Your task to perform on an android device: Go to Android settings Image 0: 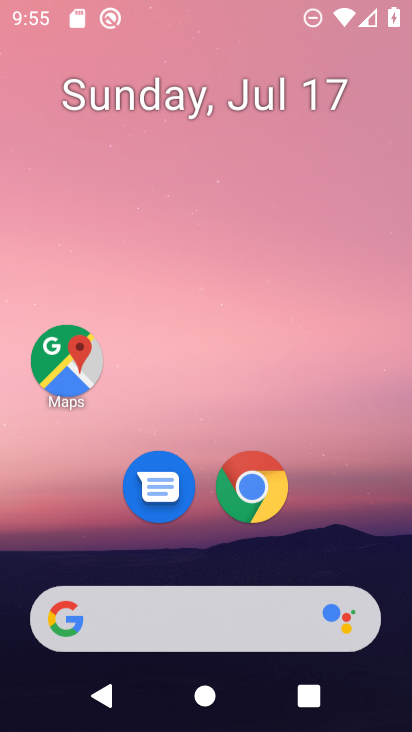
Step 0: press home button
Your task to perform on an android device: Go to Android settings Image 1: 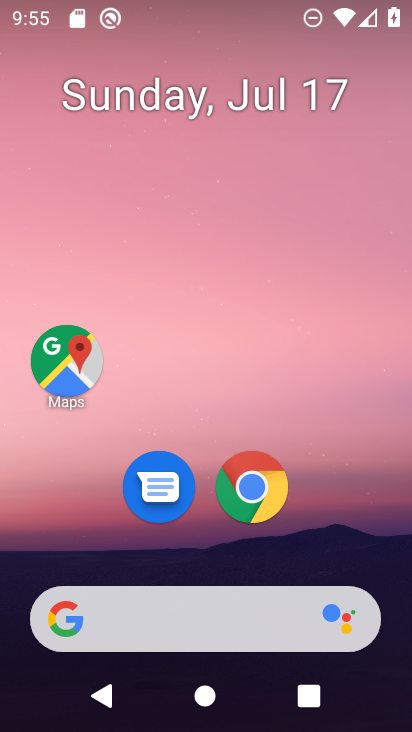
Step 1: drag from (322, 566) to (292, 49)
Your task to perform on an android device: Go to Android settings Image 2: 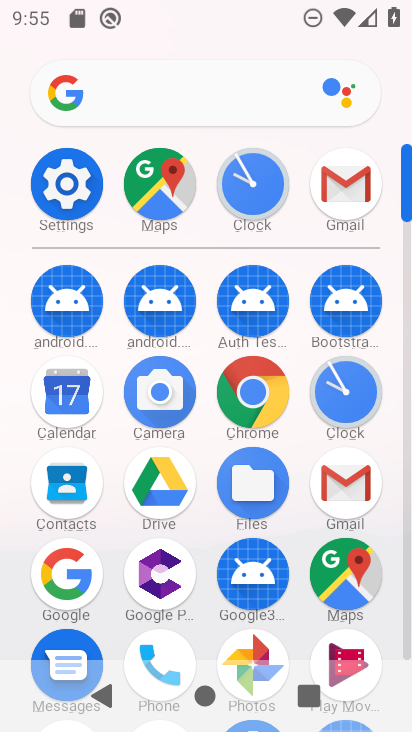
Step 2: click (68, 185)
Your task to perform on an android device: Go to Android settings Image 3: 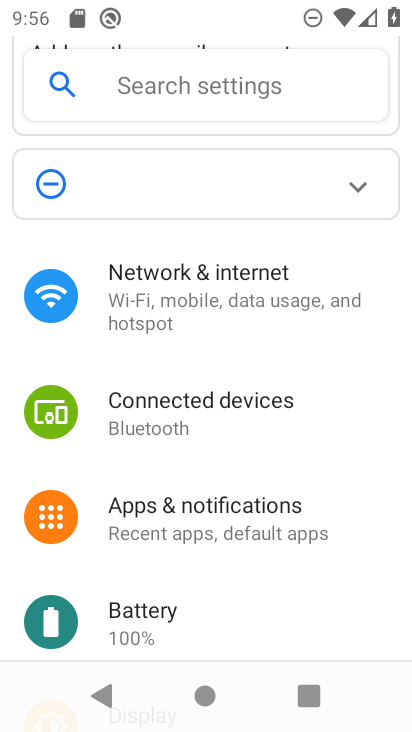
Step 3: task complete